Your task to perform on an android device: Do I have any events this weekend? Image 0: 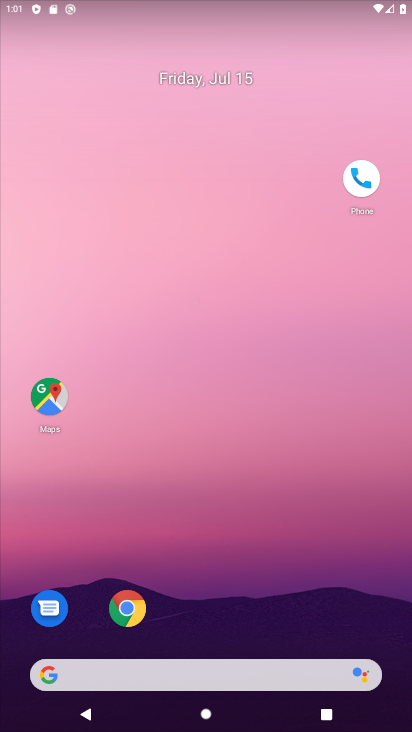
Step 0: click (57, 390)
Your task to perform on an android device: Do I have any events this weekend? Image 1: 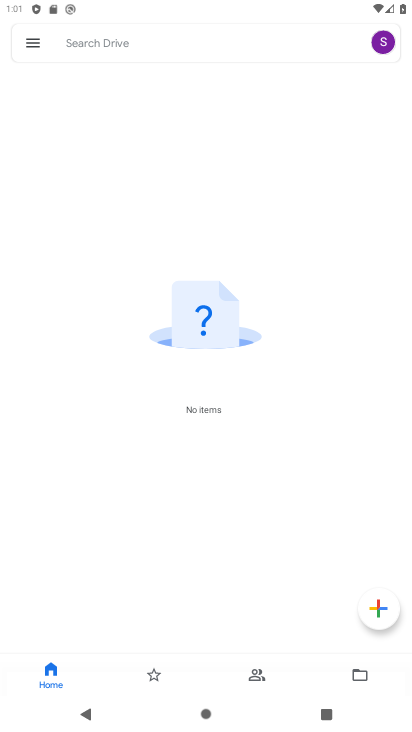
Step 1: press home button
Your task to perform on an android device: Do I have any events this weekend? Image 2: 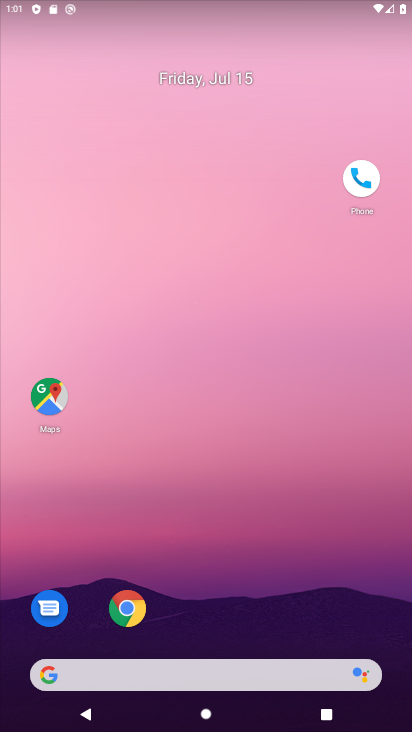
Step 2: drag from (180, 401) to (196, 64)
Your task to perform on an android device: Do I have any events this weekend? Image 3: 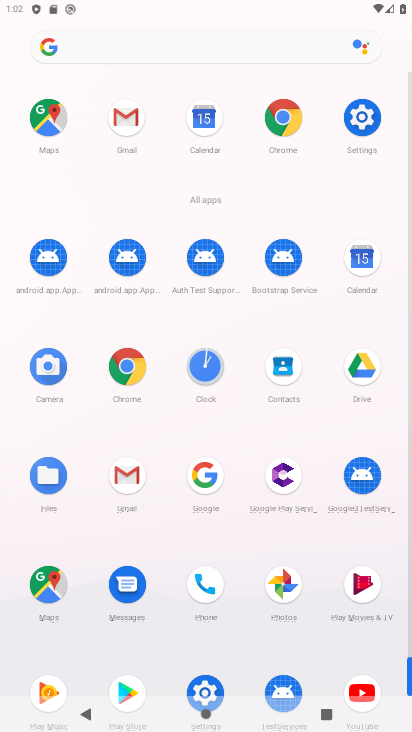
Step 3: click (346, 249)
Your task to perform on an android device: Do I have any events this weekend? Image 4: 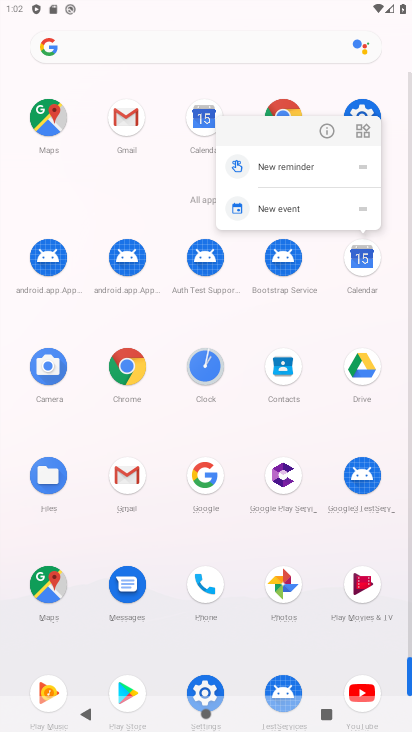
Step 4: click (322, 134)
Your task to perform on an android device: Do I have any events this weekend? Image 5: 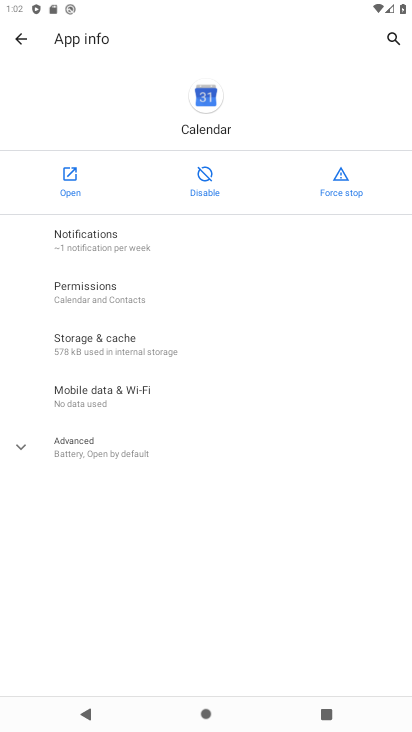
Step 5: click (75, 194)
Your task to perform on an android device: Do I have any events this weekend? Image 6: 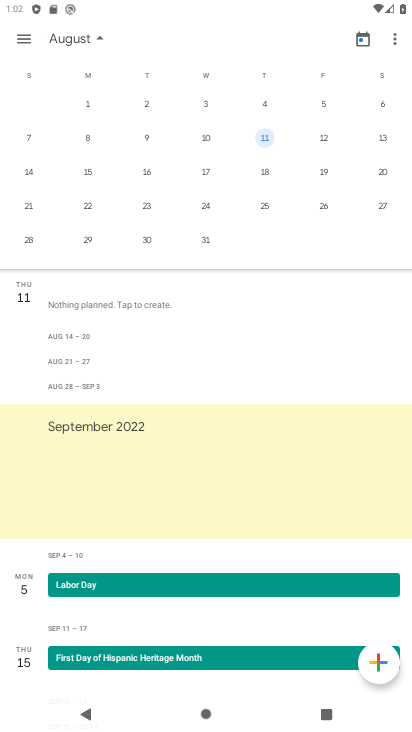
Step 6: drag from (171, 462) to (182, 206)
Your task to perform on an android device: Do I have any events this weekend? Image 7: 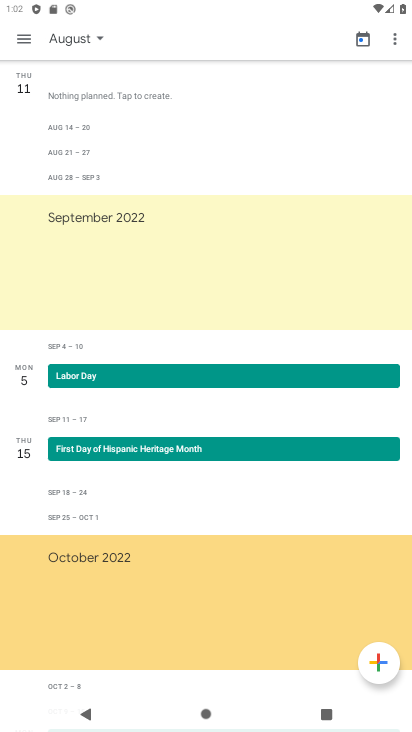
Step 7: click (83, 39)
Your task to perform on an android device: Do I have any events this weekend? Image 8: 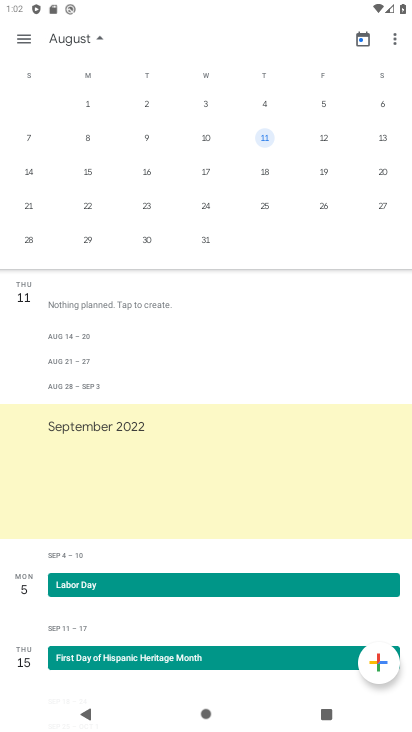
Step 8: click (359, 31)
Your task to perform on an android device: Do I have any events this weekend? Image 9: 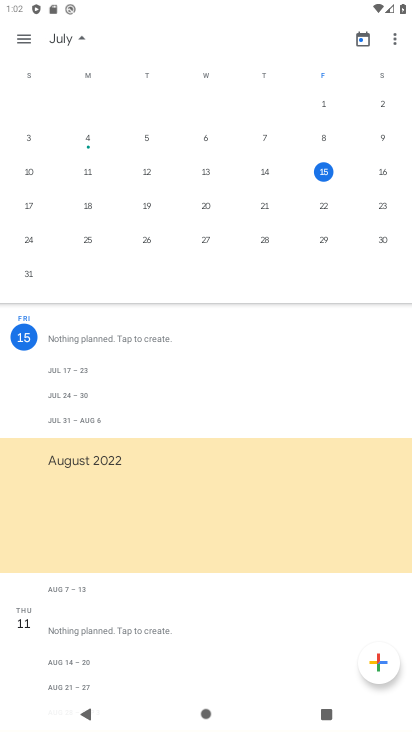
Step 9: click (385, 177)
Your task to perform on an android device: Do I have any events this weekend? Image 10: 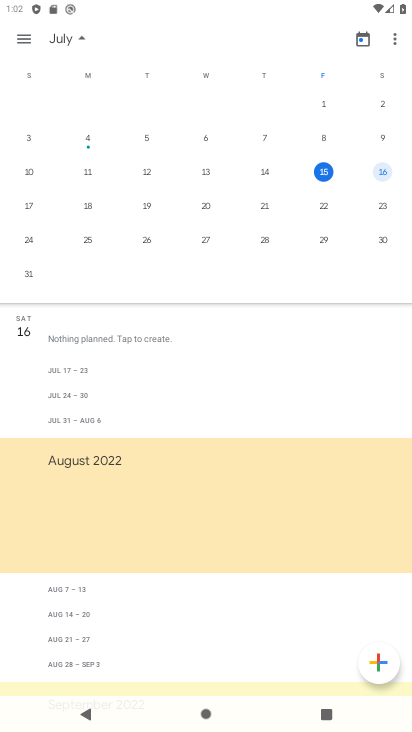
Step 10: task complete